Your task to perform on an android device: Open Youtube and go to the subscriptions tab Image 0: 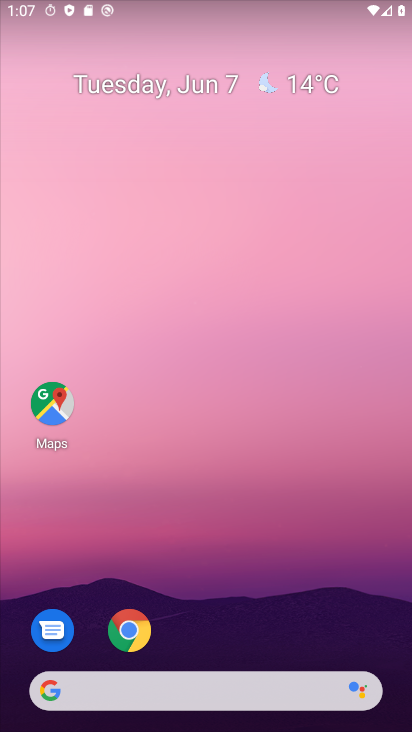
Step 0: drag from (223, 653) to (284, 123)
Your task to perform on an android device: Open Youtube and go to the subscriptions tab Image 1: 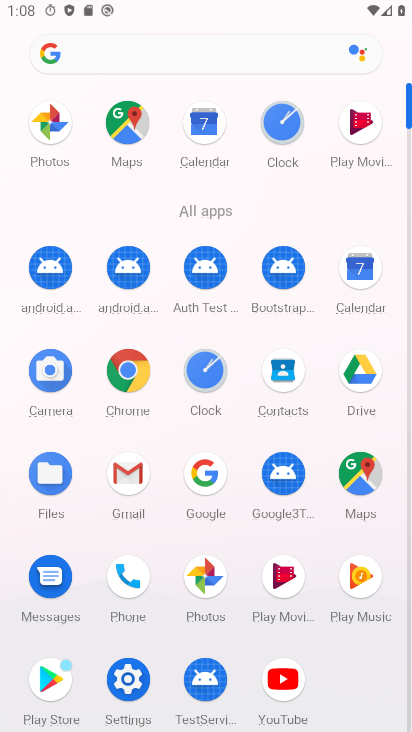
Step 1: click (278, 671)
Your task to perform on an android device: Open Youtube and go to the subscriptions tab Image 2: 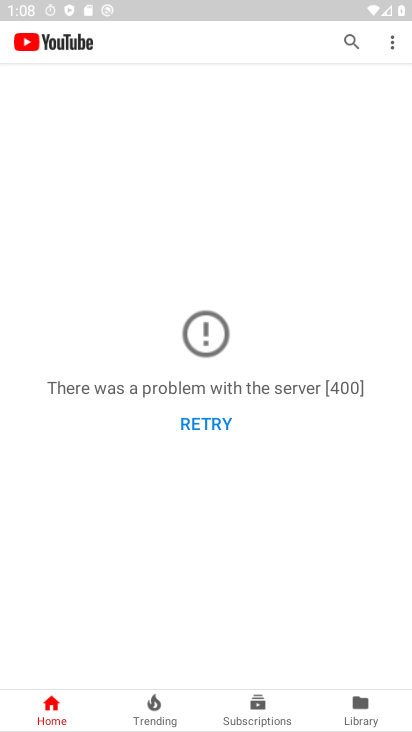
Step 2: click (261, 708)
Your task to perform on an android device: Open Youtube and go to the subscriptions tab Image 3: 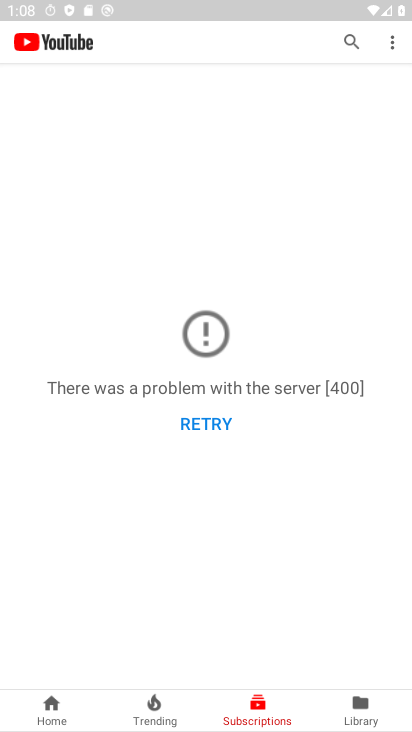
Step 3: click (207, 430)
Your task to perform on an android device: Open Youtube and go to the subscriptions tab Image 4: 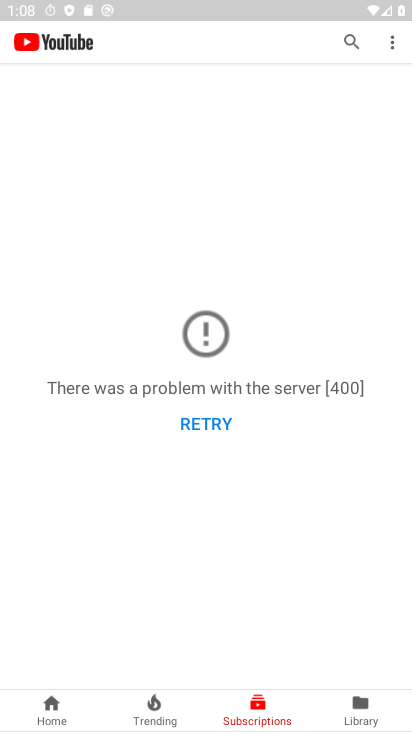
Step 4: click (206, 429)
Your task to perform on an android device: Open Youtube and go to the subscriptions tab Image 5: 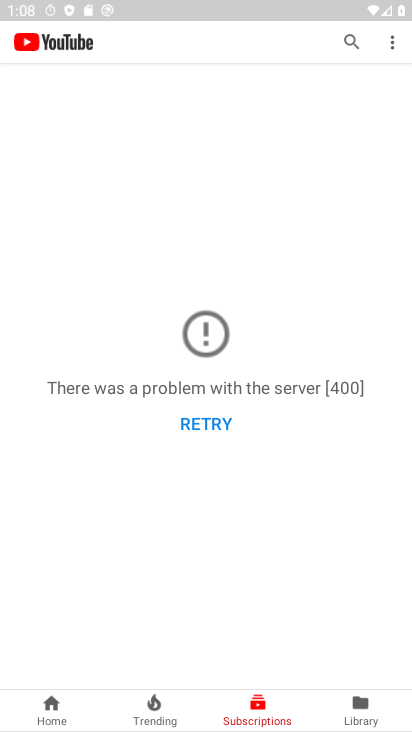
Step 5: task complete